Your task to perform on an android device: Open Chrome and go to settings Image 0: 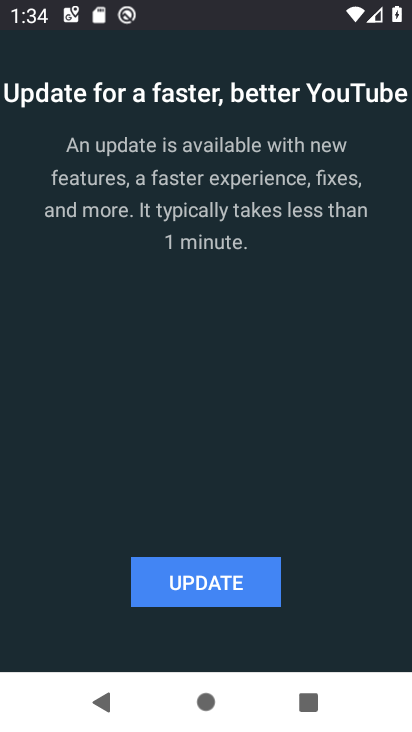
Step 0: press home button
Your task to perform on an android device: Open Chrome and go to settings Image 1: 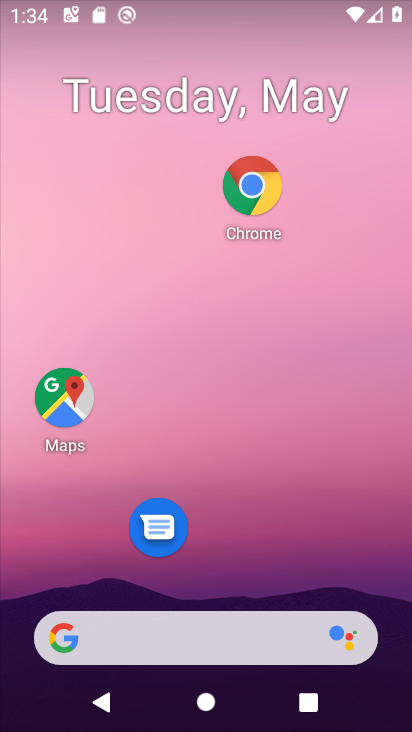
Step 1: click (253, 187)
Your task to perform on an android device: Open Chrome and go to settings Image 2: 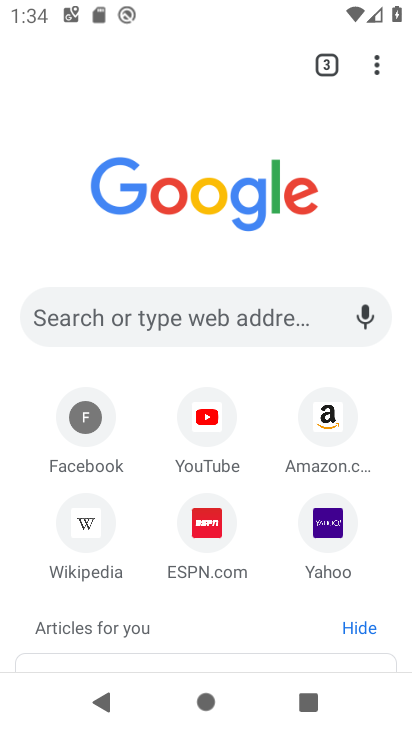
Step 2: click (373, 70)
Your task to perform on an android device: Open Chrome and go to settings Image 3: 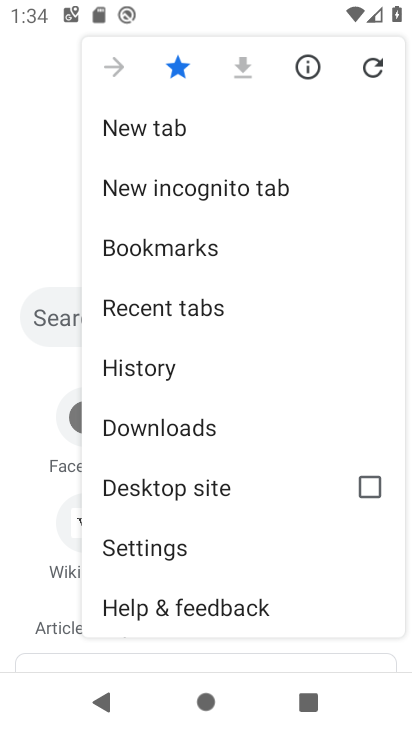
Step 3: click (165, 548)
Your task to perform on an android device: Open Chrome and go to settings Image 4: 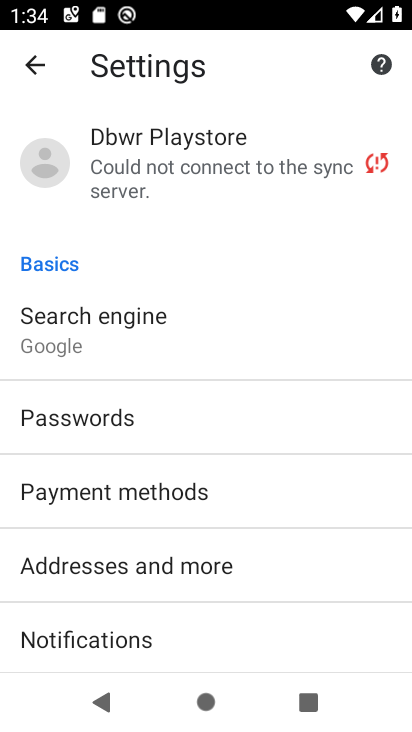
Step 4: task complete